Your task to perform on an android device: View the shopping cart on newegg. Add bose soundlink mini to the cart on newegg, then select checkout. Image 0: 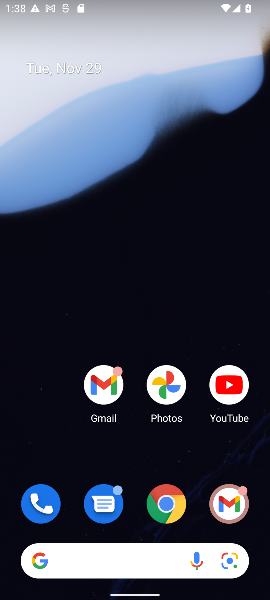
Step 0: click (166, 508)
Your task to perform on an android device: View the shopping cart on newegg. Add bose soundlink mini to the cart on newegg, then select checkout. Image 1: 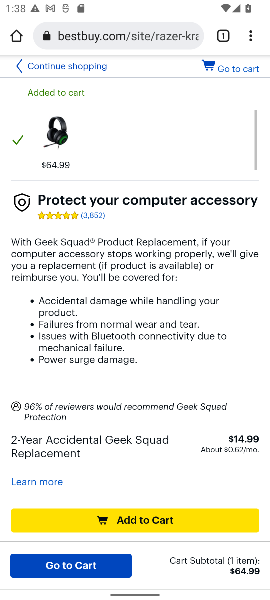
Step 1: click (124, 39)
Your task to perform on an android device: View the shopping cart on newegg. Add bose soundlink mini to the cart on newegg, then select checkout. Image 2: 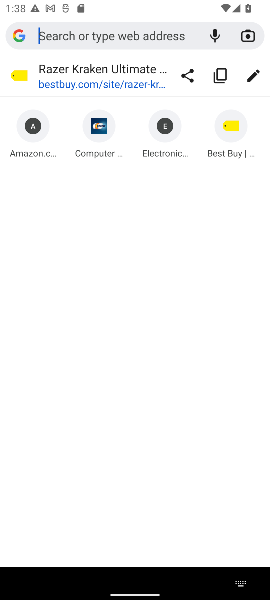
Step 2: click (100, 139)
Your task to perform on an android device: View the shopping cart on newegg. Add bose soundlink mini to the cart on newegg, then select checkout. Image 3: 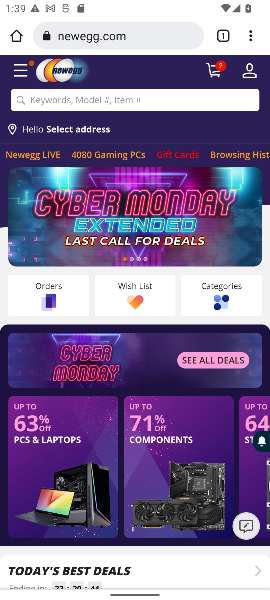
Step 3: click (213, 66)
Your task to perform on an android device: View the shopping cart on newegg. Add bose soundlink mini to the cart on newegg, then select checkout. Image 4: 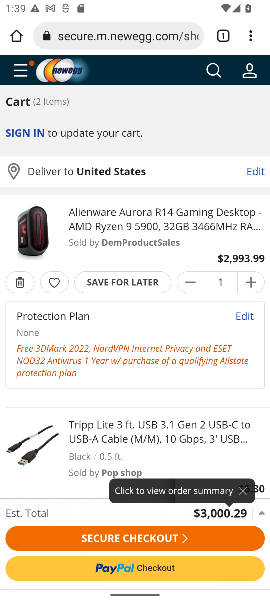
Step 4: click (213, 74)
Your task to perform on an android device: View the shopping cart on newegg. Add bose soundlink mini to the cart on newegg, then select checkout. Image 5: 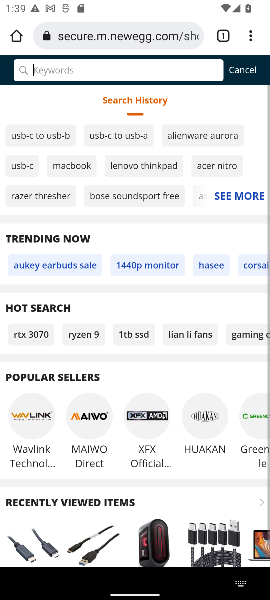
Step 5: type "bose soundlink mini "
Your task to perform on an android device: View the shopping cart on newegg. Add bose soundlink mini to the cart on newegg, then select checkout. Image 6: 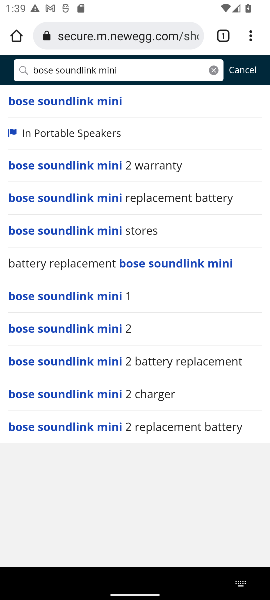
Step 6: click (88, 106)
Your task to perform on an android device: View the shopping cart on newegg. Add bose soundlink mini to the cart on newegg, then select checkout. Image 7: 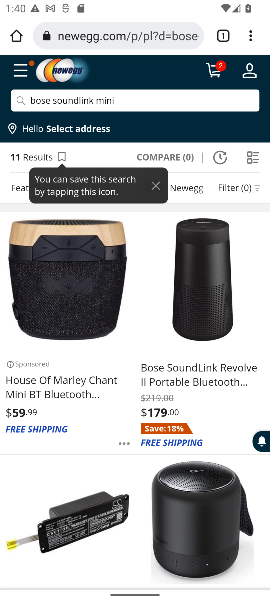
Step 7: drag from (115, 406) to (128, 219)
Your task to perform on an android device: View the shopping cart on newegg. Add bose soundlink mini to the cart on newegg, then select checkout. Image 8: 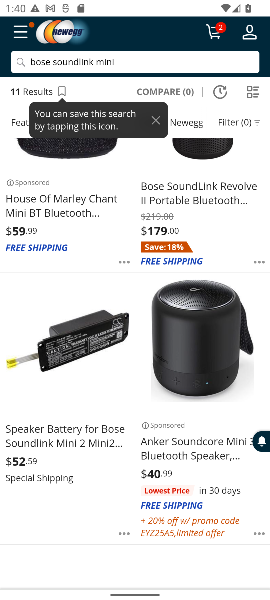
Step 8: drag from (110, 385) to (114, 304)
Your task to perform on an android device: View the shopping cart on newegg. Add bose soundlink mini to the cart on newegg, then select checkout. Image 9: 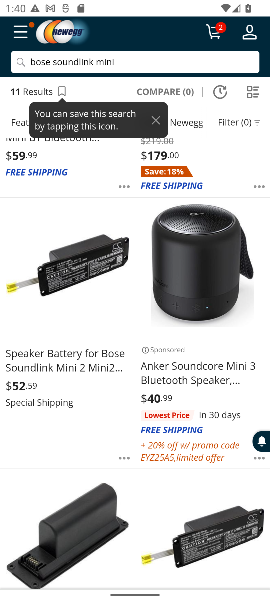
Step 9: click (68, 274)
Your task to perform on an android device: View the shopping cart on newegg. Add bose soundlink mini to the cart on newegg, then select checkout. Image 10: 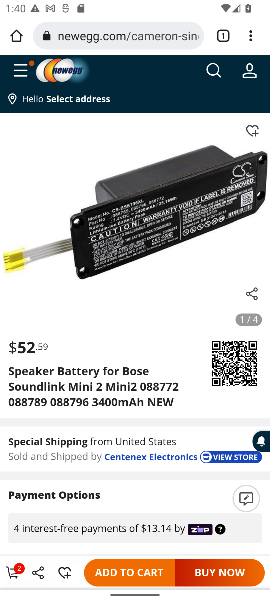
Step 10: click (125, 566)
Your task to perform on an android device: View the shopping cart on newegg. Add bose soundlink mini to the cart on newegg, then select checkout. Image 11: 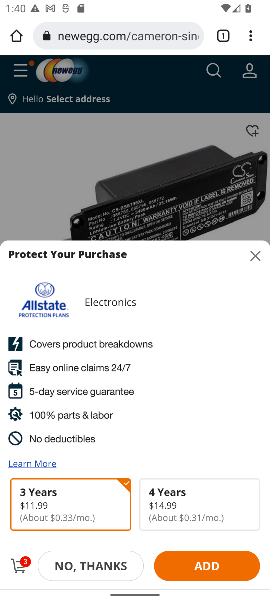
Step 11: click (17, 568)
Your task to perform on an android device: View the shopping cart on newegg. Add bose soundlink mini to the cart on newegg, then select checkout. Image 12: 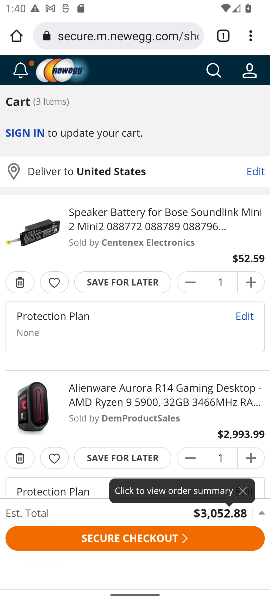
Step 12: click (121, 543)
Your task to perform on an android device: View the shopping cart on newegg. Add bose soundlink mini to the cart on newegg, then select checkout. Image 13: 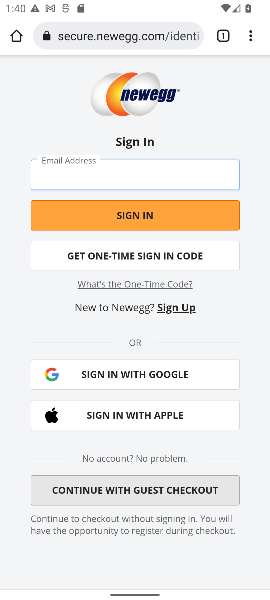
Step 13: task complete